Your task to perform on an android device: change alarm snooze length Image 0: 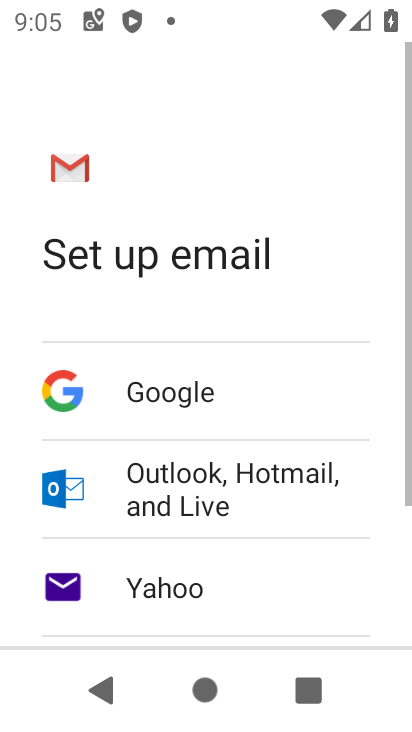
Step 0: press home button
Your task to perform on an android device: change alarm snooze length Image 1: 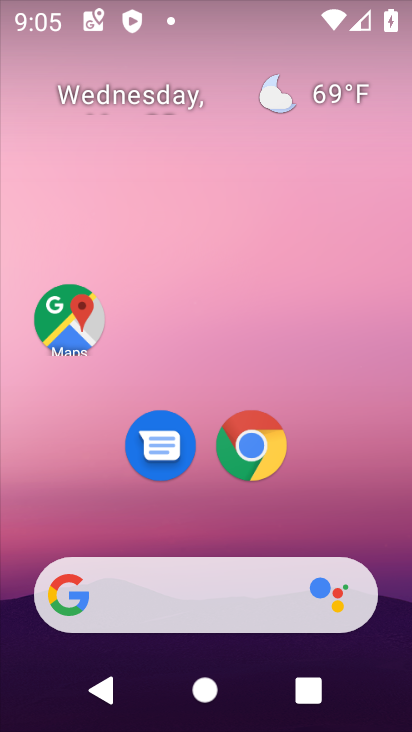
Step 1: drag from (348, 521) to (334, 79)
Your task to perform on an android device: change alarm snooze length Image 2: 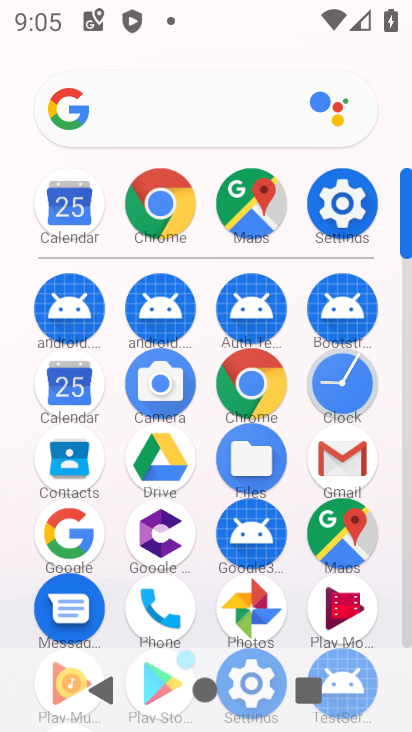
Step 2: click (356, 373)
Your task to perform on an android device: change alarm snooze length Image 3: 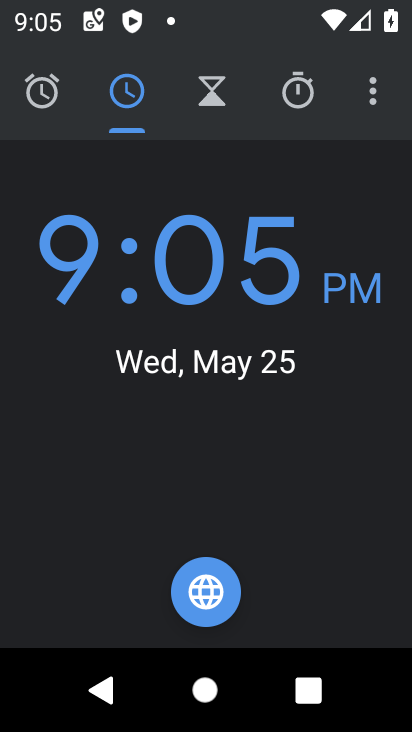
Step 3: click (369, 86)
Your task to perform on an android device: change alarm snooze length Image 4: 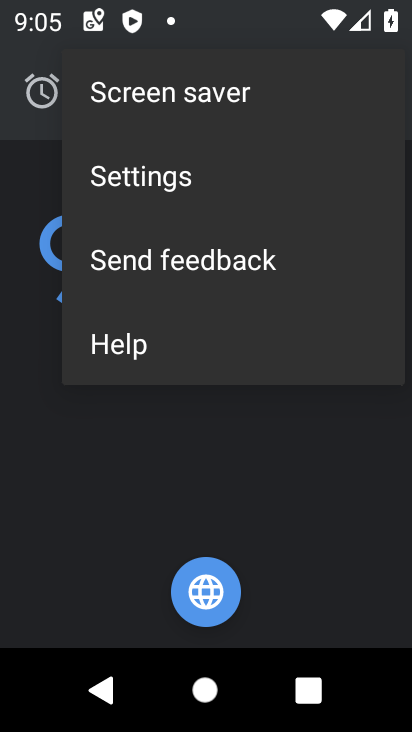
Step 4: click (179, 183)
Your task to perform on an android device: change alarm snooze length Image 5: 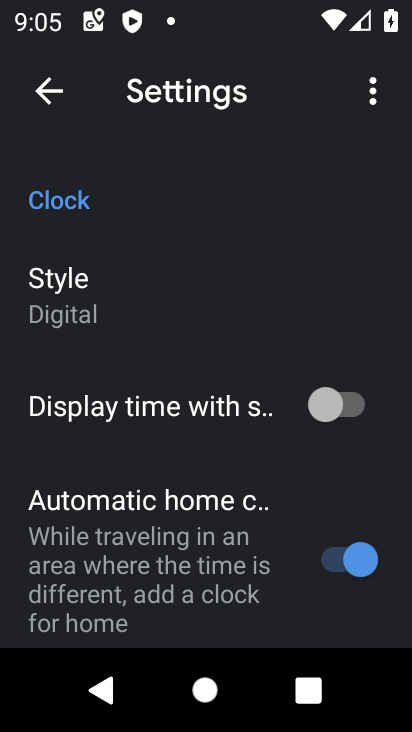
Step 5: drag from (239, 438) to (200, 207)
Your task to perform on an android device: change alarm snooze length Image 6: 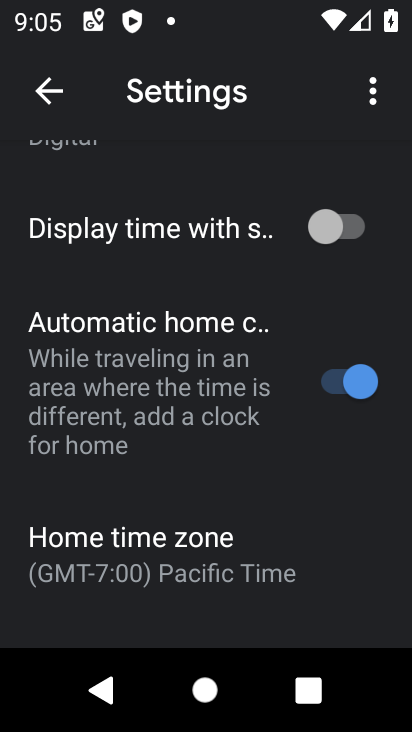
Step 6: drag from (315, 542) to (263, 206)
Your task to perform on an android device: change alarm snooze length Image 7: 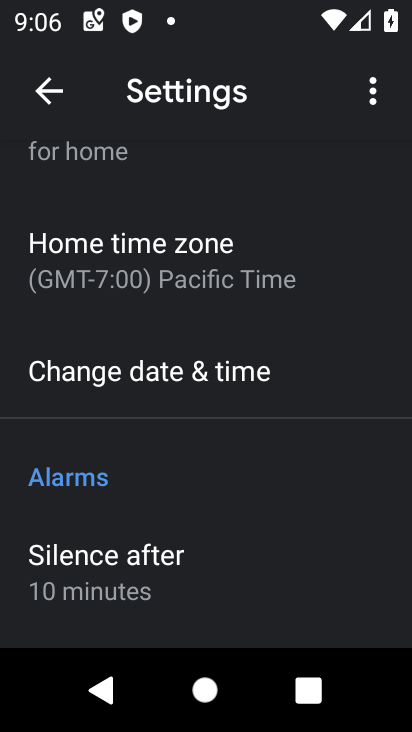
Step 7: drag from (317, 522) to (228, 176)
Your task to perform on an android device: change alarm snooze length Image 8: 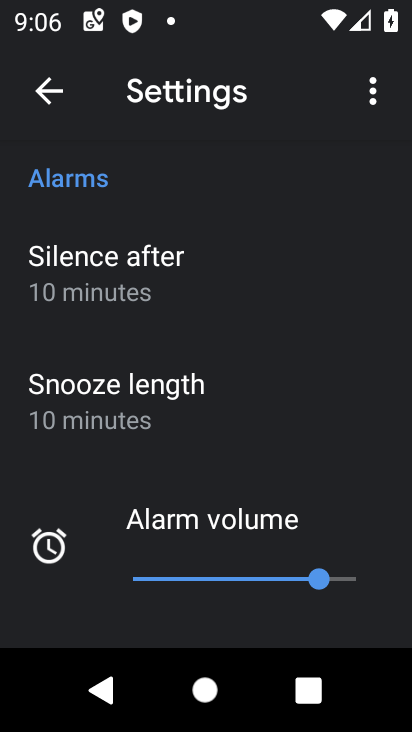
Step 8: click (143, 406)
Your task to perform on an android device: change alarm snooze length Image 9: 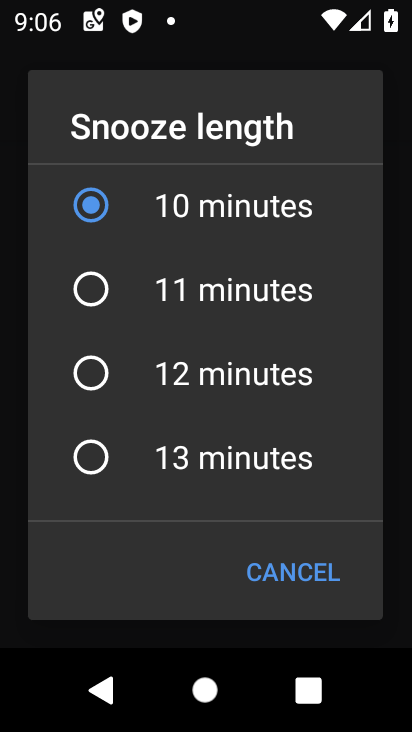
Step 9: click (196, 296)
Your task to perform on an android device: change alarm snooze length Image 10: 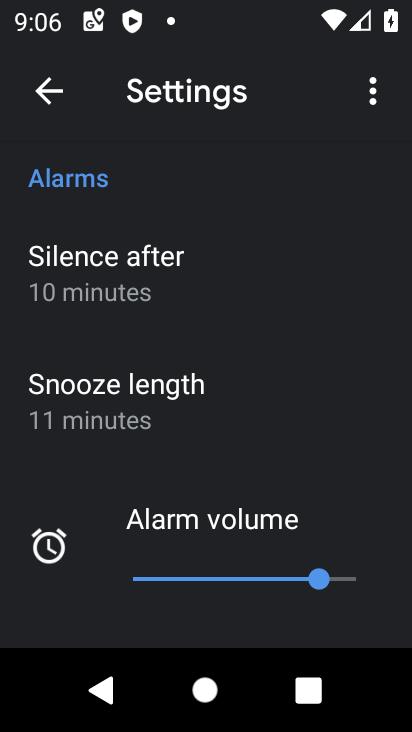
Step 10: task complete